Your task to perform on an android device: Open accessibility settings Image 0: 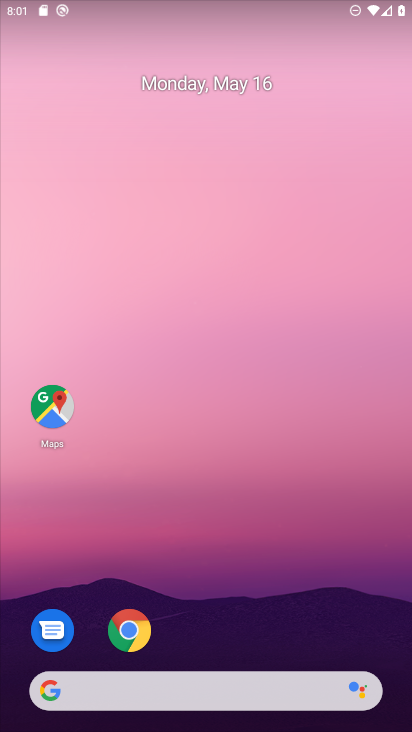
Step 0: drag from (174, 546) to (109, 49)
Your task to perform on an android device: Open accessibility settings Image 1: 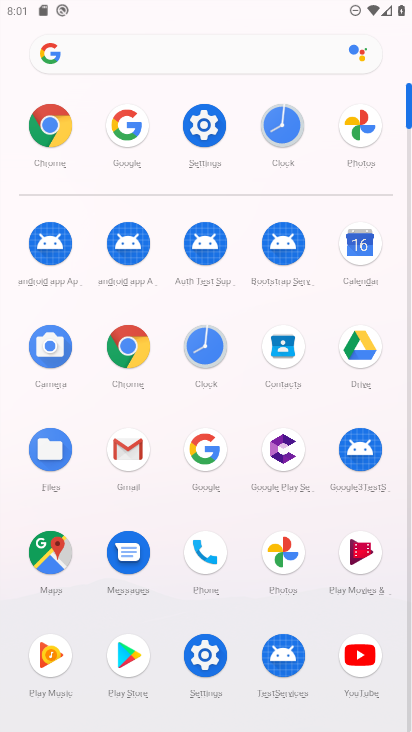
Step 1: click (214, 134)
Your task to perform on an android device: Open accessibility settings Image 2: 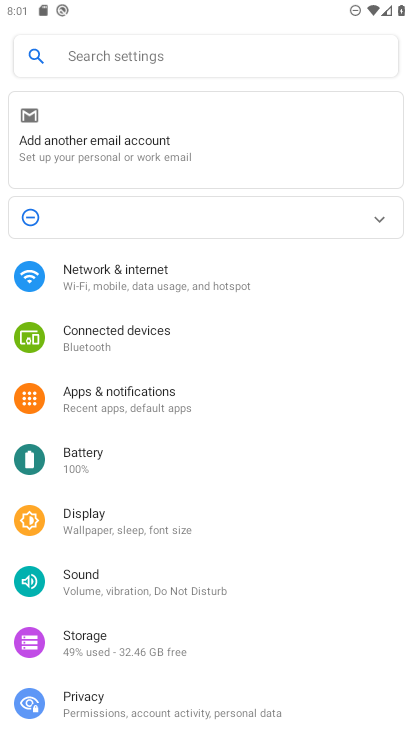
Step 2: drag from (242, 545) to (202, 234)
Your task to perform on an android device: Open accessibility settings Image 3: 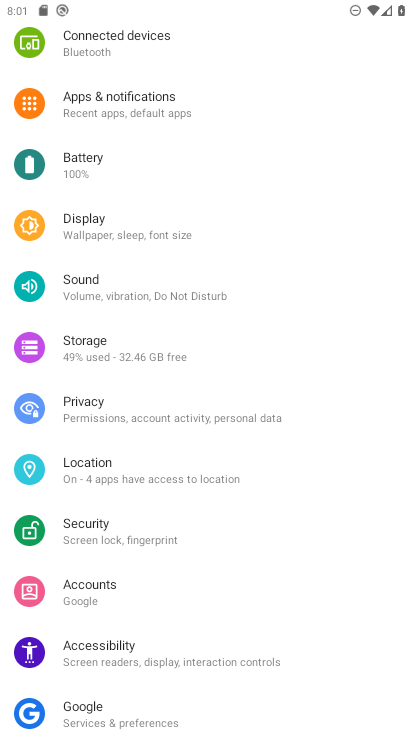
Step 3: drag from (275, 558) to (222, 320)
Your task to perform on an android device: Open accessibility settings Image 4: 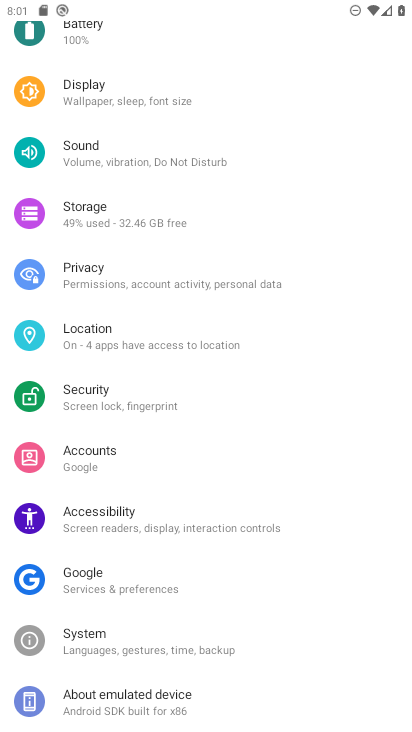
Step 4: click (107, 518)
Your task to perform on an android device: Open accessibility settings Image 5: 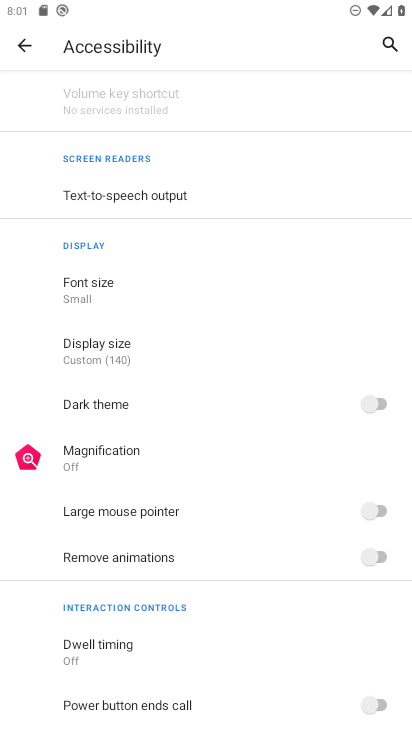
Step 5: task complete